Your task to perform on an android device: stop showing notifications on the lock screen Image 0: 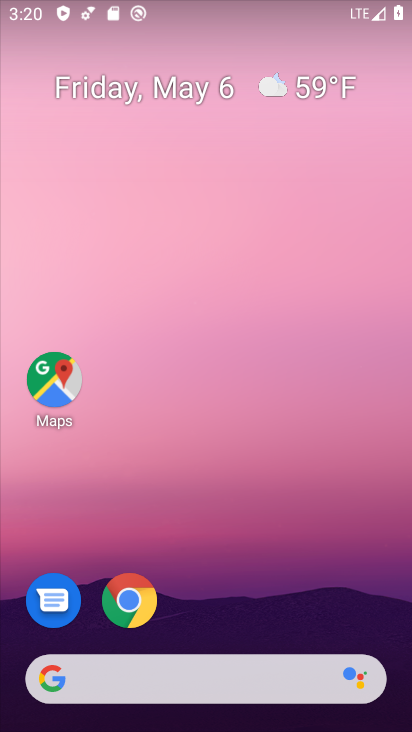
Step 0: drag from (215, 599) to (270, 100)
Your task to perform on an android device: stop showing notifications on the lock screen Image 1: 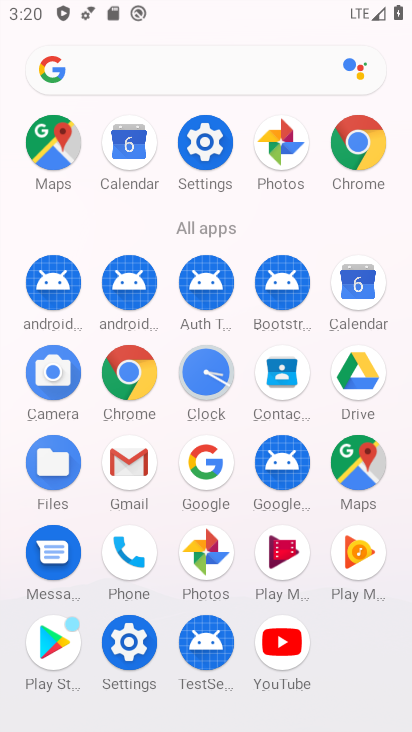
Step 1: click (214, 167)
Your task to perform on an android device: stop showing notifications on the lock screen Image 2: 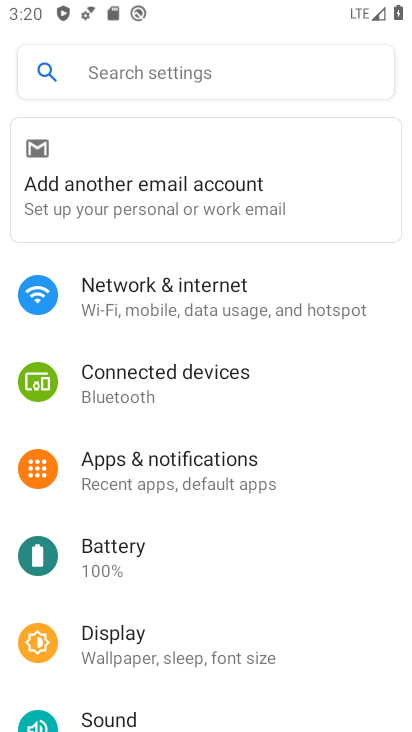
Step 2: click (188, 326)
Your task to perform on an android device: stop showing notifications on the lock screen Image 3: 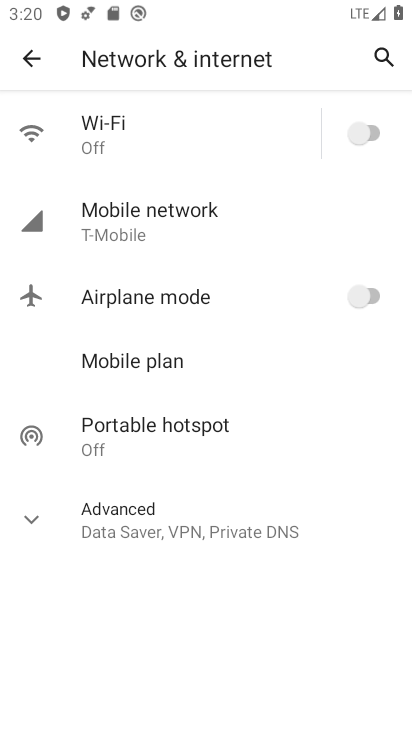
Step 3: click (203, 504)
Your task to perform on an android device: stop showing notifications on the lock screen Image 4: 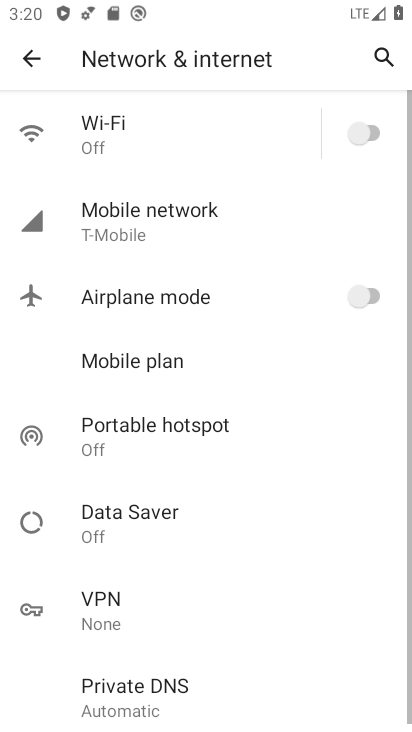
Step 4: click (50, 68)
Your task to perform on an android device: stop showing notifications on the lock screen Image 5: 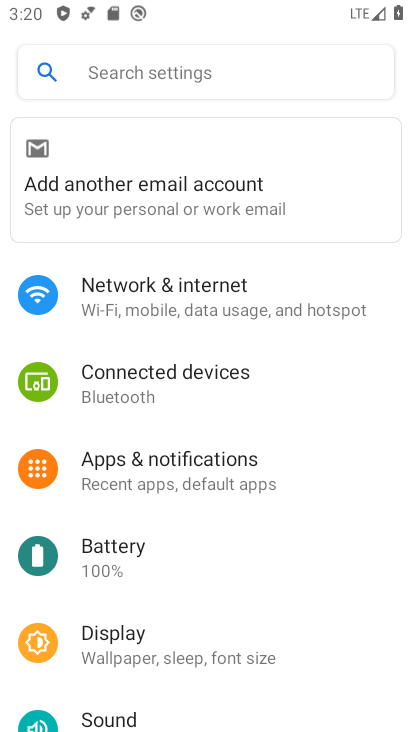
Step 5: click (231, 478)
Your task to perform on an android device: stop showing notifications on the lock screen Image 6: 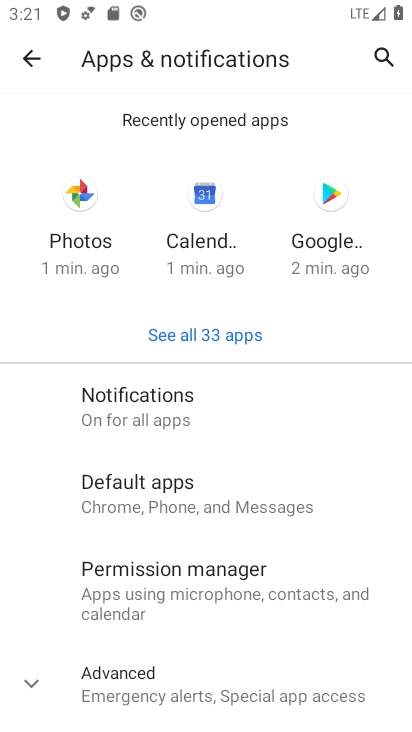
Step 6: click (174, 417)
Your task to perform on an android device: stop showing notifications on the lock screen Image 7: 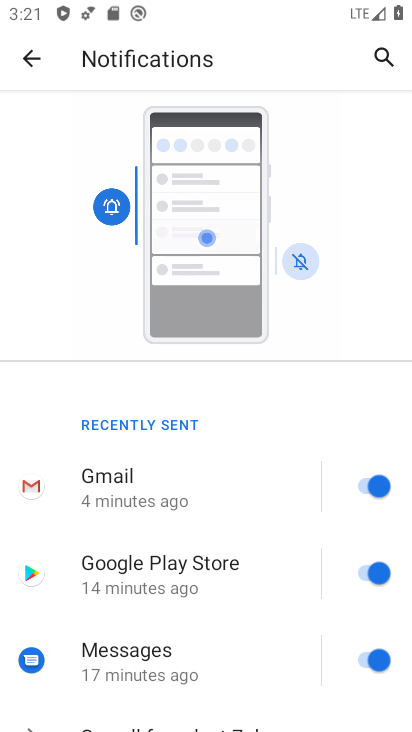
Step 7: drag from (198, 595) to (251, 225)
Your task to perform on an android device: stop showing notifications on the lock screen Image 8: 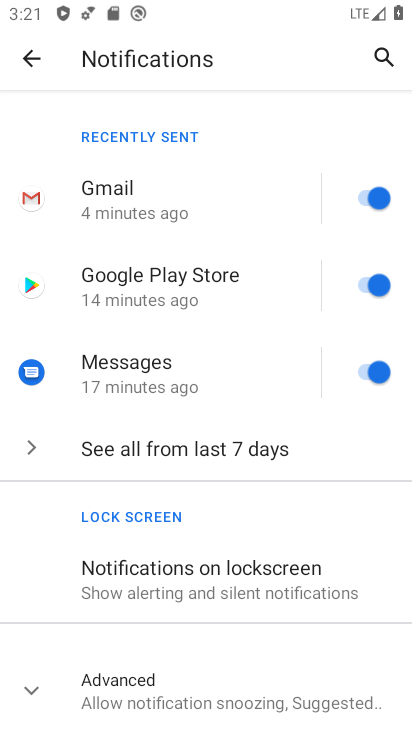
Step 8: click (201, 565)
Your task to perform on an android device: stop showing notifications on the lock screen Image 9: 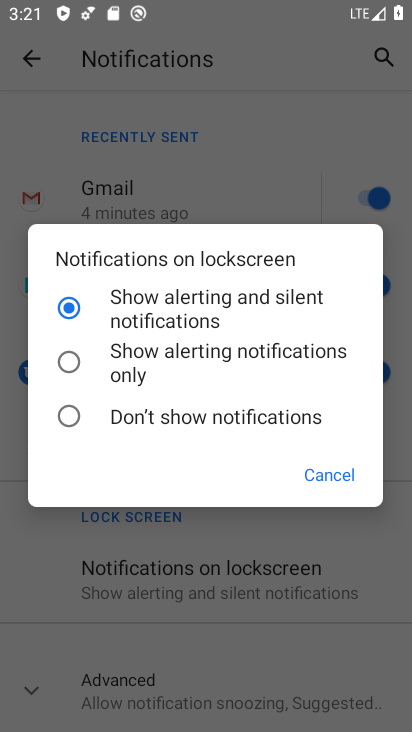
Step 9: click (51, 412)
Your task to perform on an android device: stop showing notifications on the lock screen Image 10: 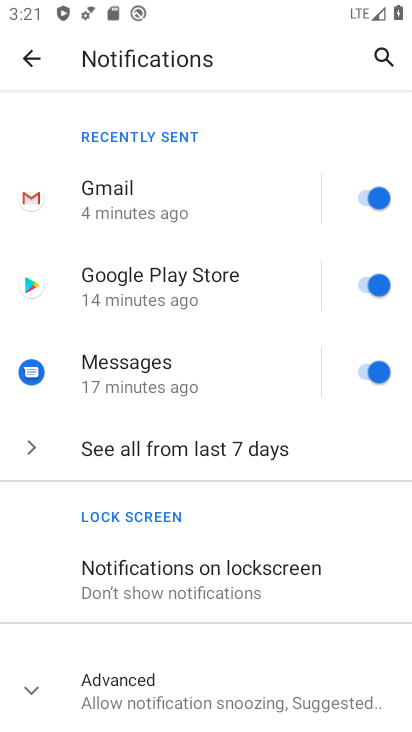
Step 10: task complete